Your task to perform on an android device: When is my next appointment? Image 0: 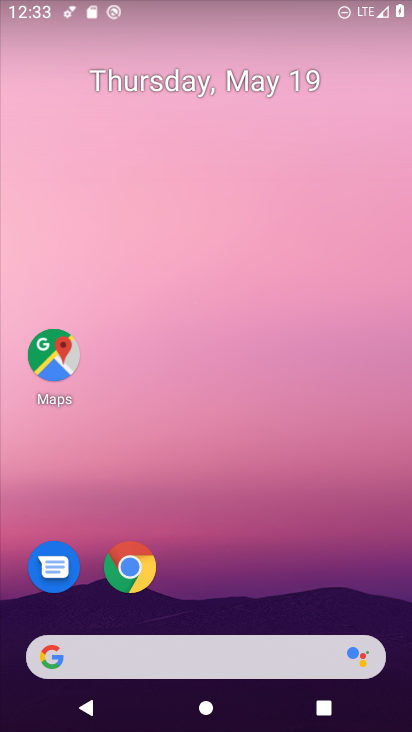
Step 0: drag from (252, 552) to (213, 145)
Your task to perform on an android device: When is my next appointment? Image 1: 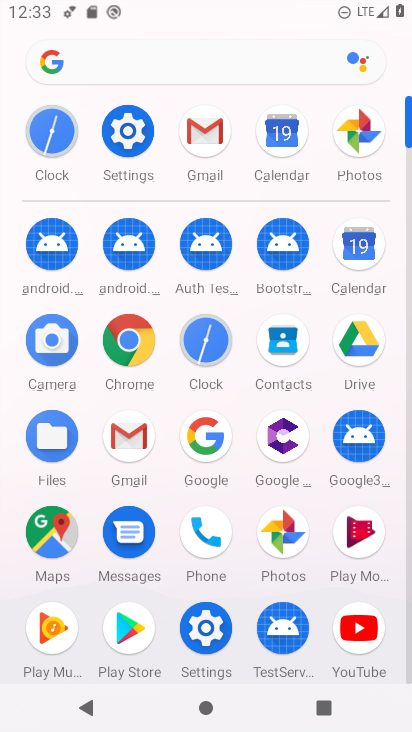
Step 1: click (284, 136)
Your task to perform on an android device: When is my next appointment? Image 2: 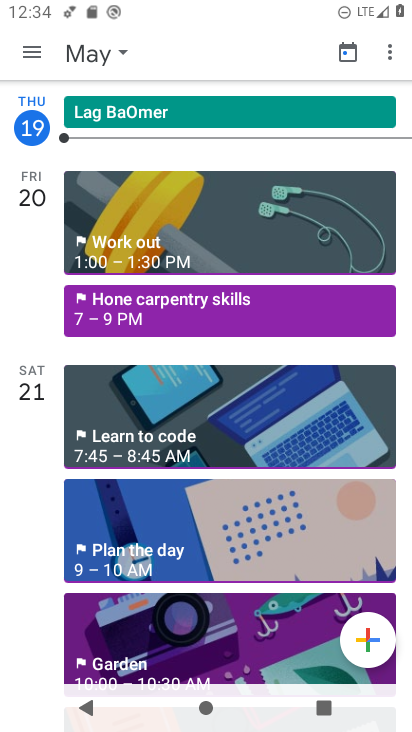
Step 2: task complete